Your task to perform on an android device: Go to privacy settings Image 0: 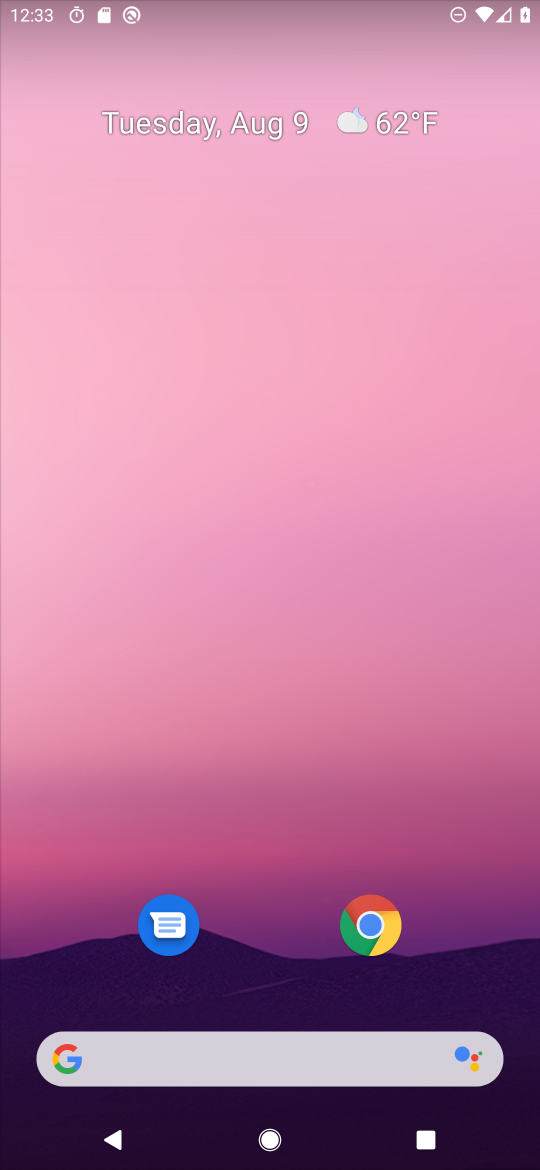
Step 0: drag from (288, 927) to (380, 244)
Your task to perform on an android device: Go to privacy settings Image 1: 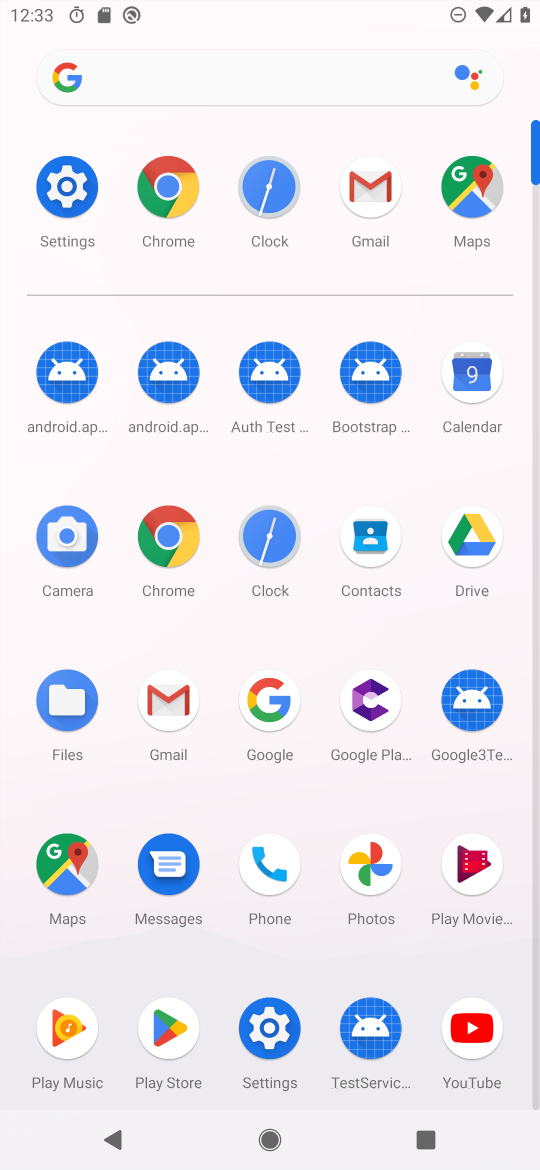
Step 1: click (50, 187)
Your task to perform on an android device: Go to privacy settings Image 2: 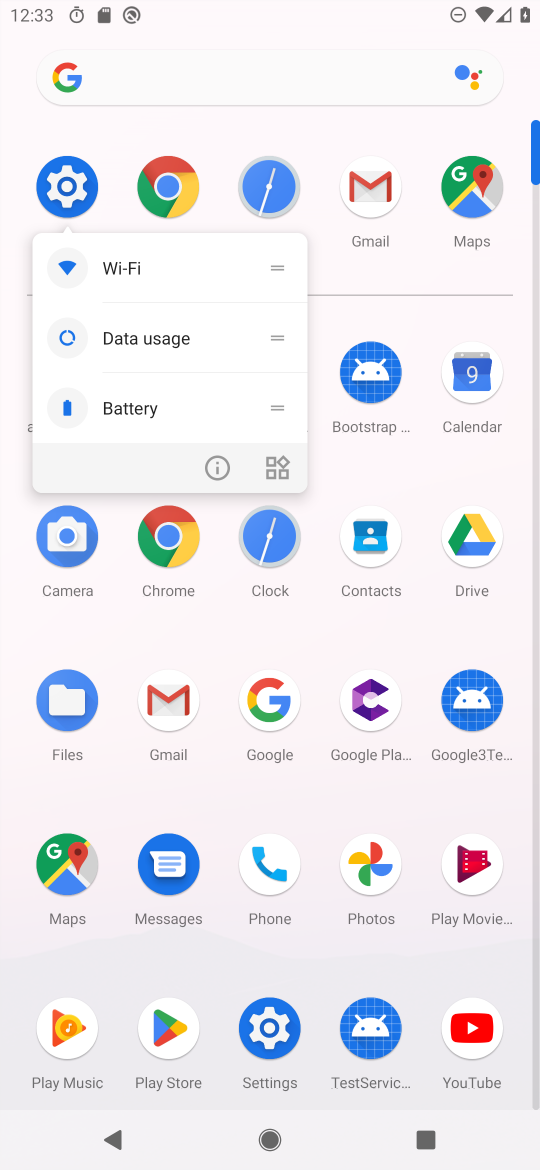
Step 2: click (73, 180)
Your task to perform on an android device: Go to privacy settings Image 3: 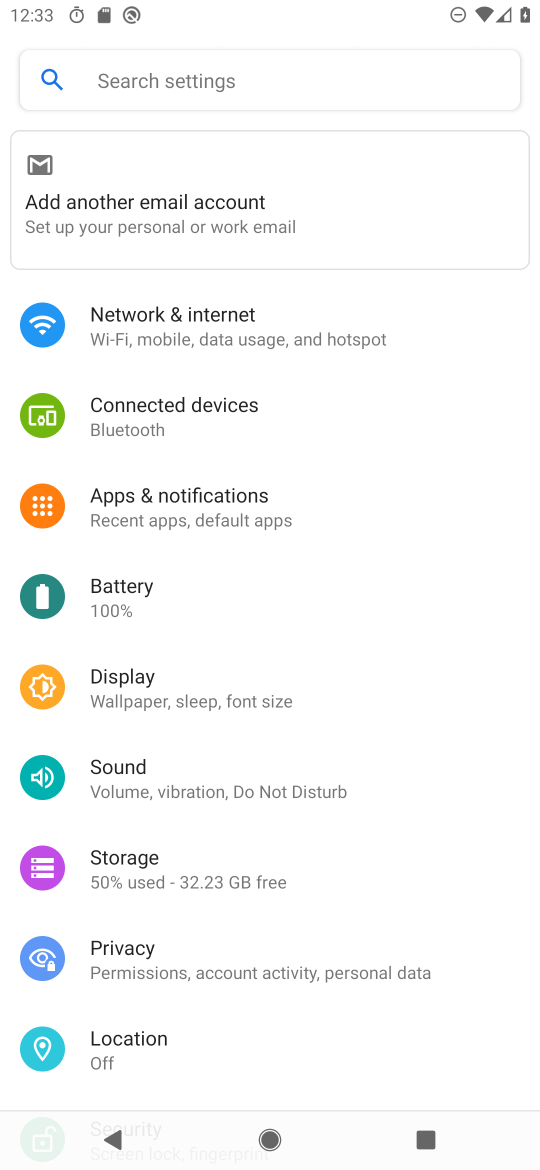
Step 3: click (130, 952)
Your task to perform on an android device: Go to privacy settings Image 4: 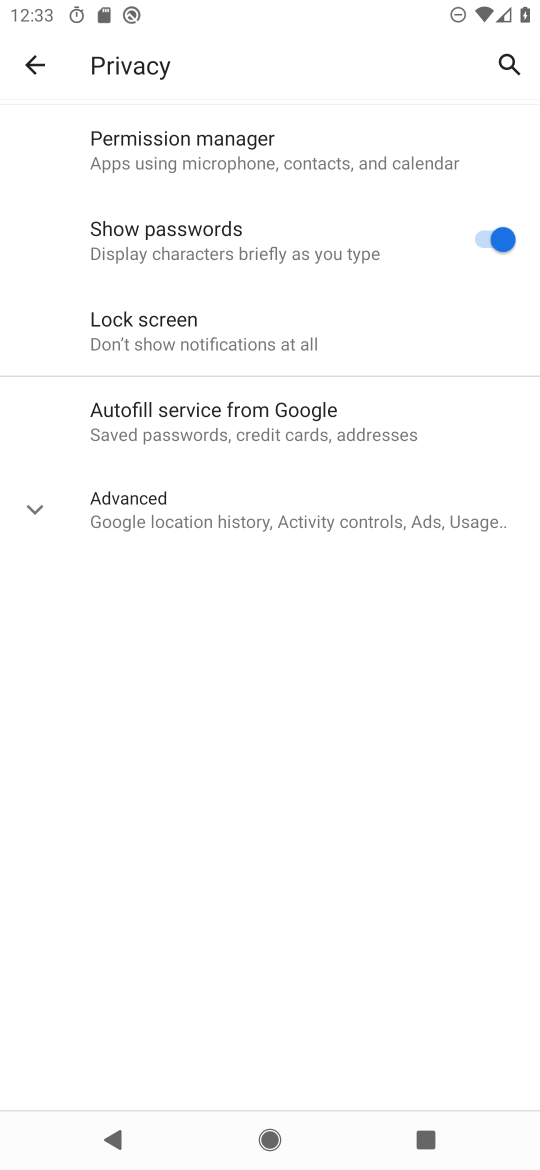
Step 4: task complete